Your task to perform on an android device: Do I have any events this weekend? Image 0: 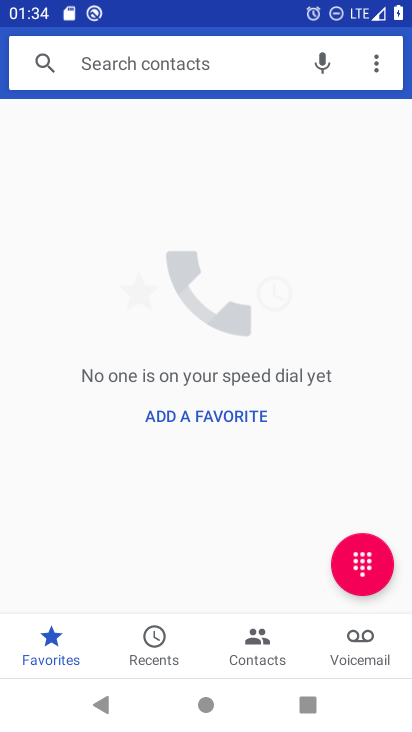
Step 0: press home button
Your task to perform on an android device: Do I have any events this weekend? Image 1: 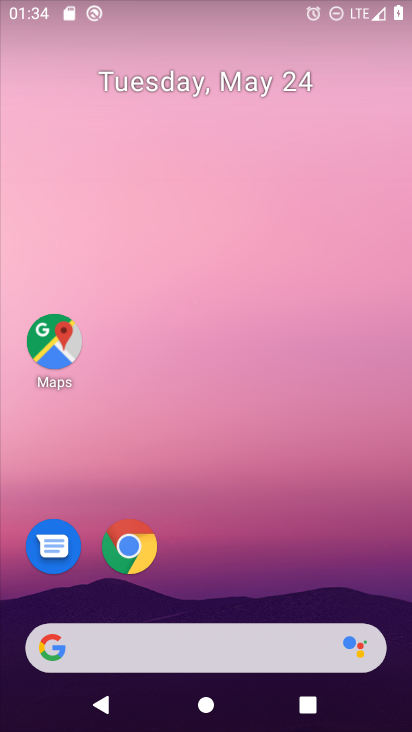
Step 1: drag from (240, 627) to (233, 87)
Your task to perform on an android device: Do I have any events this weekend? Image 2: 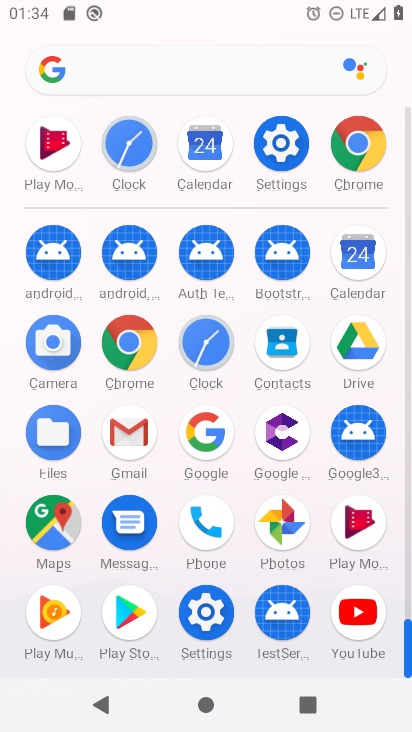
Step 2: click (356, 259)
Your task to perform on an android device: Do I have any events this weekend? Image 3: 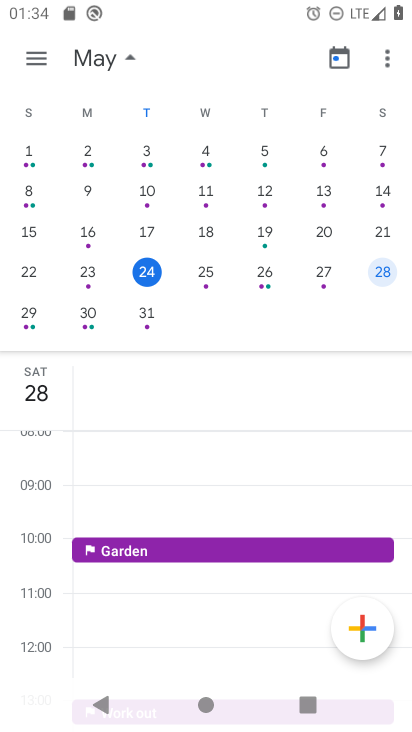
Step 3: click (375, 269)
Your task to perform on an android device: Do I have any events this weekend? Image 4: 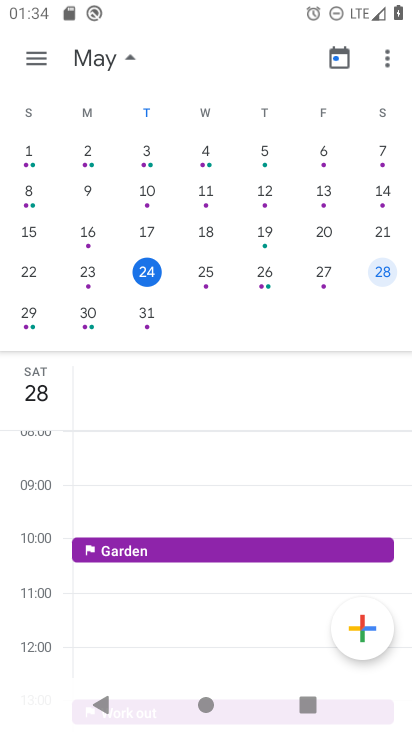
Step 4: click (375, 269)
Your task to perform on an android device: Do I have any events this weekend? Image 5: 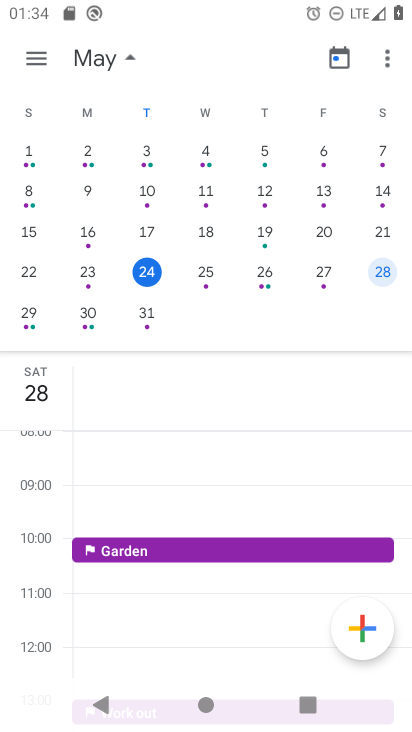
Step 5: click (375, 269)
Your task to perform on an android device: Do I have any events this weekend? Image 6: 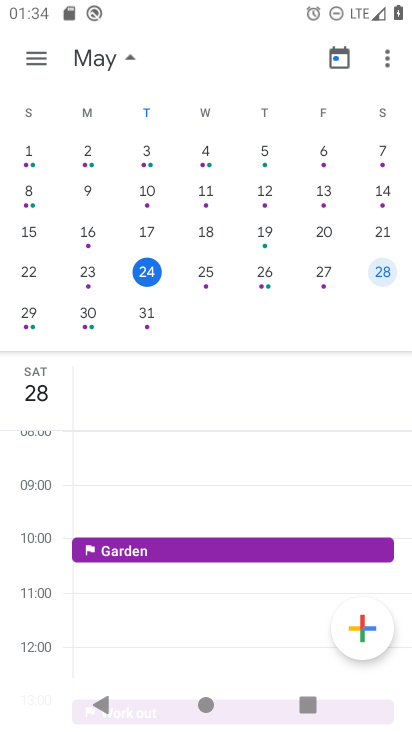
Step 6: task complete